Your task to perform on an android device: empty trash in google photos Image 0: 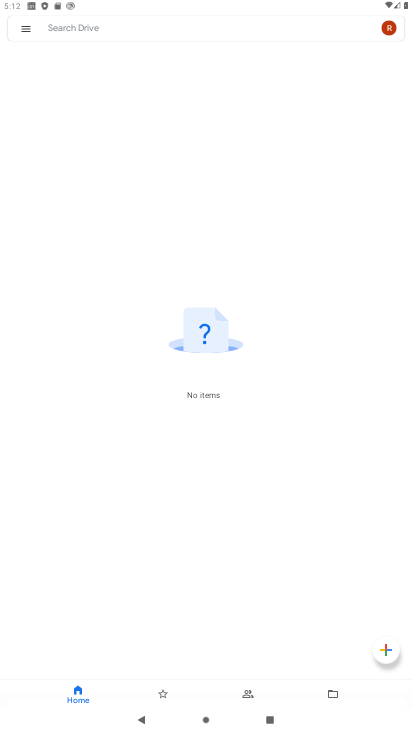
Step 0: press home button
Your task to perform on an android device: empty trash in google photos Image 1: 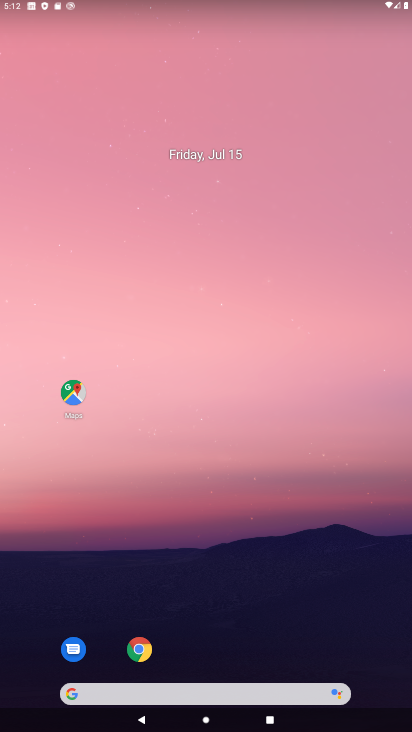
Step 1: drag from (203, 693) to (273, 273)
Your task to perform on an android device: empty trash in google photos Image 2: 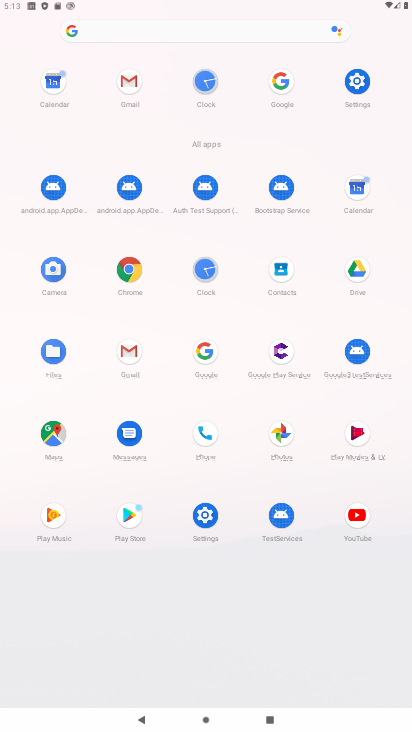
Step 2: click (279, 433)
Your task to perform on an android device: empty trash in google photos Image 3: 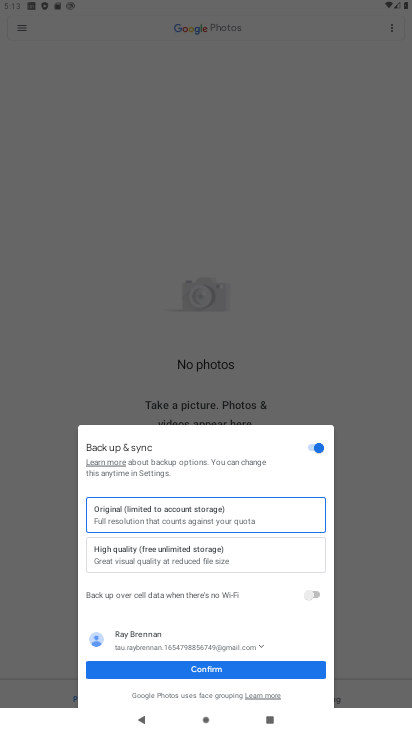
Step 3: click (145, 678)
Your task to perform on an android device: empty trash in google photos Image 4: 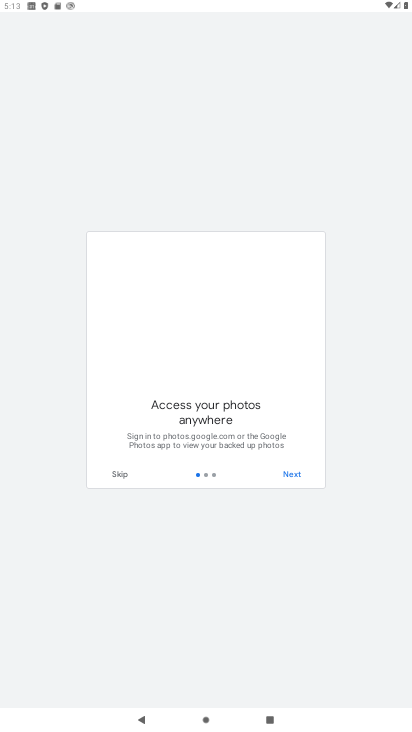
Step 4: click (283, 472)
Your task to perform on an android device: empty trash in google photos Image 5: 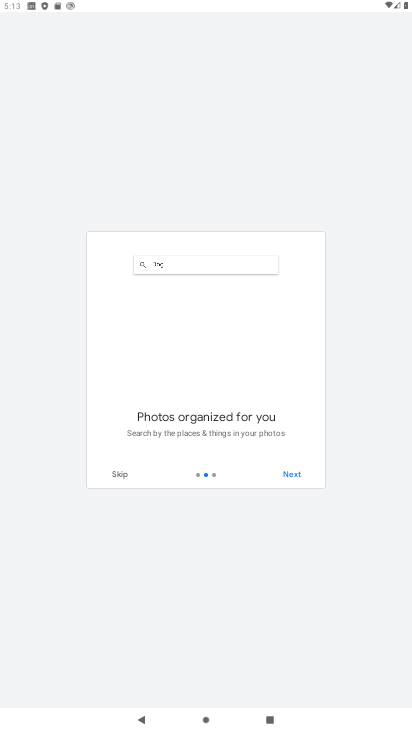
Step 5: click (283, 472)
Your task to perform on an android device: empty trash in google photos Image 6: 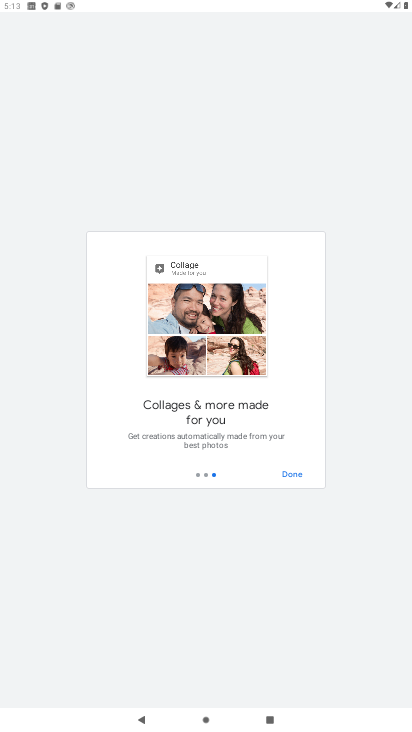
Step 6: click (283, 472)
Your task to perform on an android device: empty trash in google photos Image 7: 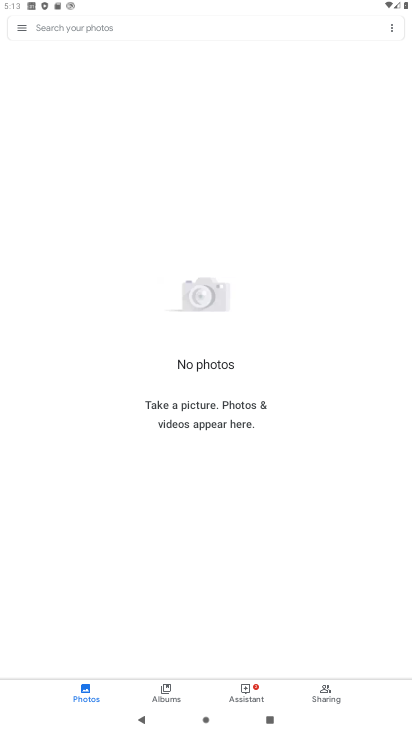
Step 7: click (20, 28)
Your task to perform on an android device: empty trash in google photos Image 8: 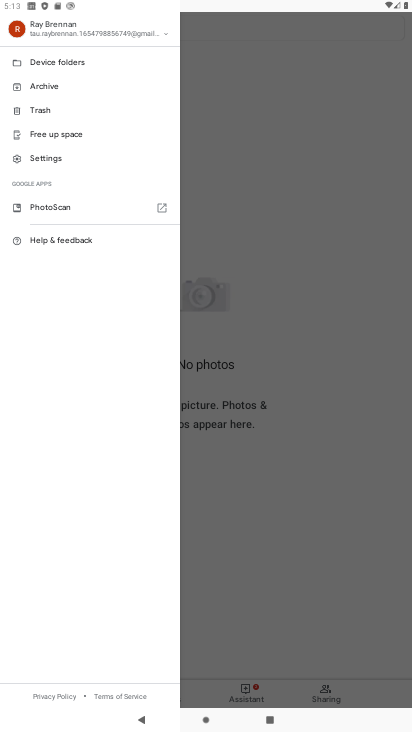
Step 8: click (34, 106)
Your task to perform on an android device: empty trash in google photos Image 9: 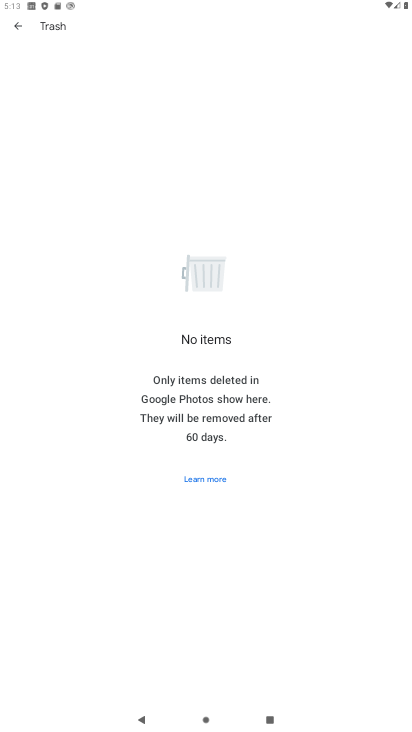
Step 9: task complete